Your task to perform on an android device: Show me productivity apps on the Play Store Image 0: 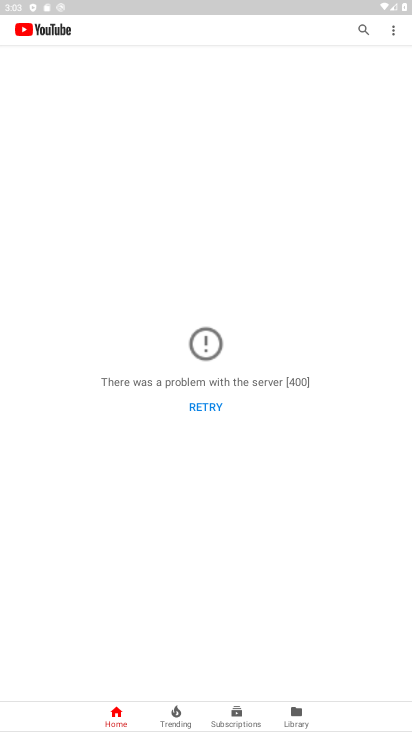
Step 0: press home button
Your task to perform on an android device: Show me productivity apps on the Play Store Image 1: 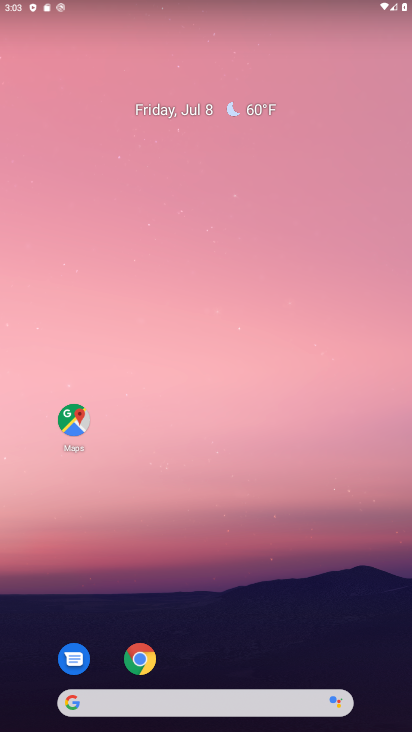
Step 1: drag from (259, 664) to (321, 260)
Your task to perform on an android device: Show me productivity apps on the Play Store Image 2: 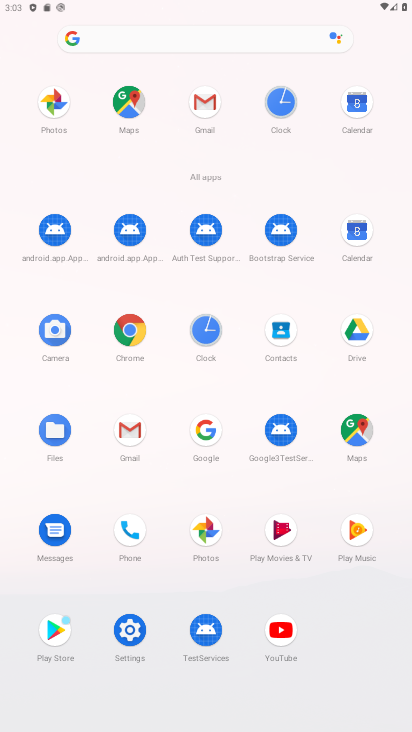
Step 2: click (49, 635)
Your task to perform on an android device: Show me productivity apps on the Play Store Image 3: 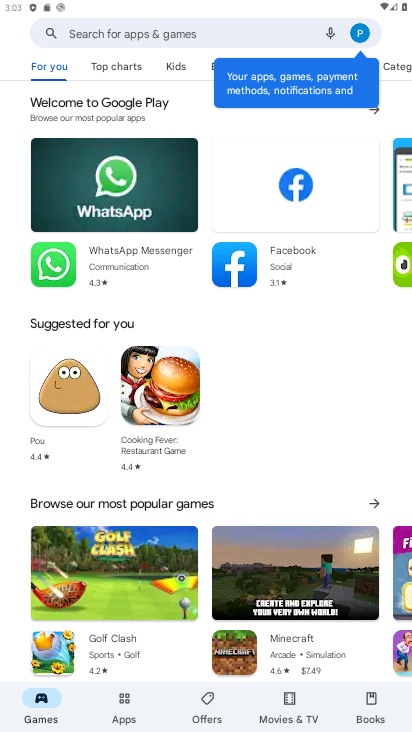
Step 3: click (121, 705)
Your task to perform on an android device: Show me productivity apps on the Play Store Image 4: 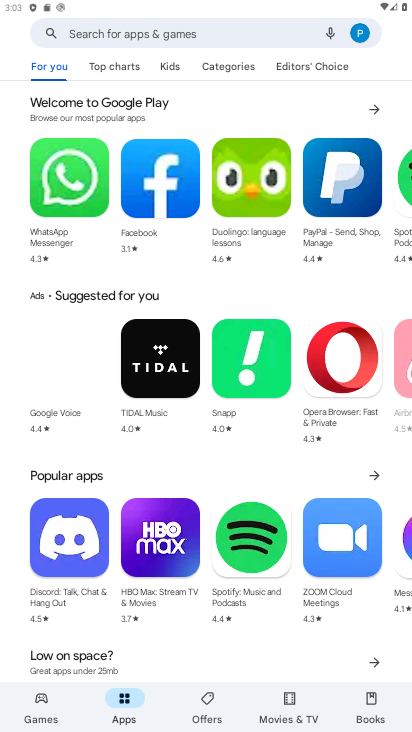
Step 4: click (228, 67)
Your task to perform on an android device: Show me productivity apps on the Play Store Image 5: 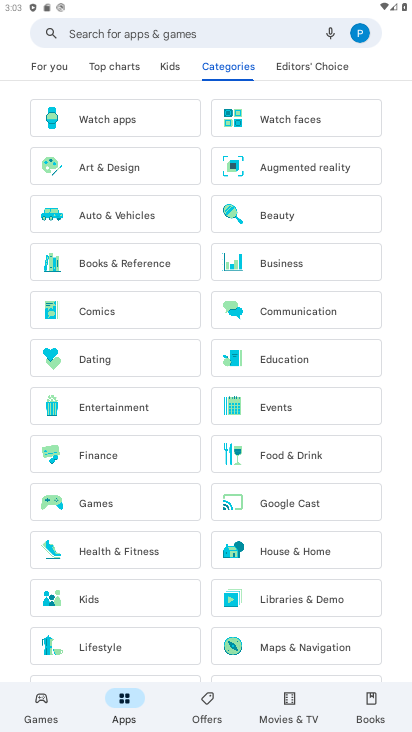
Step 5: drag from (240, 529) to (250, 265)
Your task to perform on an android device: Show me productivity apps on the Play Store Image 6: 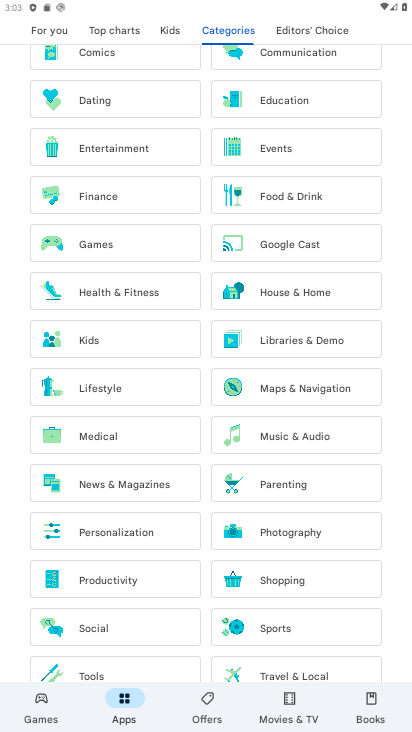
Step 6: click (119, 580)
Your task to perform on an android device: Show me productivity apps on the Play Store Image 7: 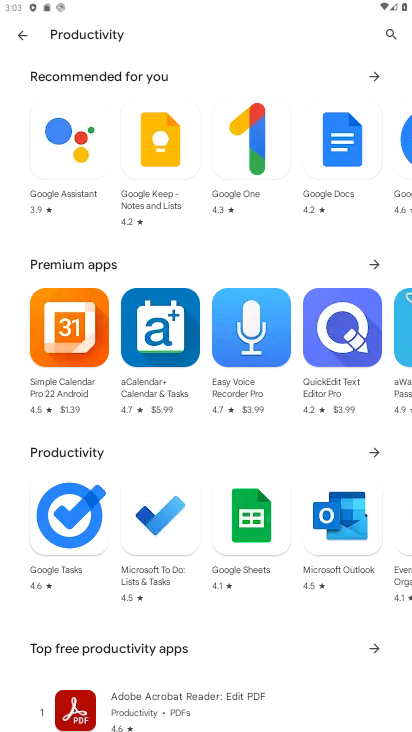
Step 7: task complete